Your task to perform on an android device: Go to Reddit.com Image 0: 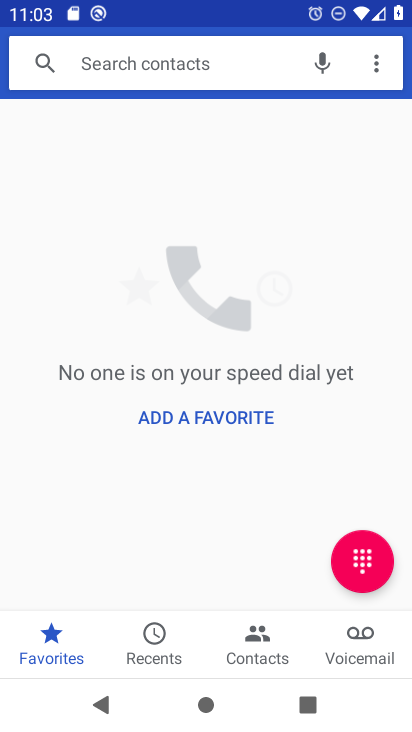
Step 0: press back button
Your task to perform on an android device: Go to Reddit.com Image 1: 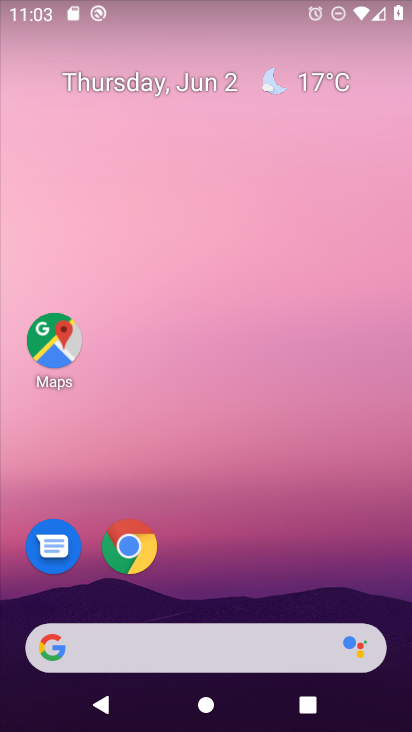
Step 1: drag from (272, 573) to (177, 40)
Your task to perform on an android device: Go to Reddit.com Image 2: 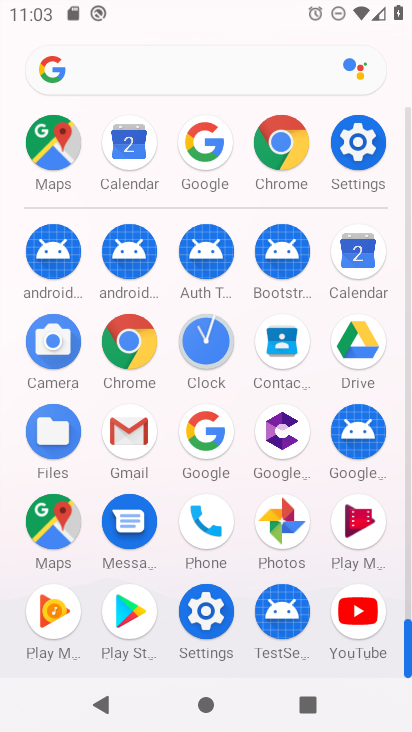
Step 2: drag from (5, 574) to (12, 208)
Your task to perform on an android device: Go to Reddit.com Image 3: 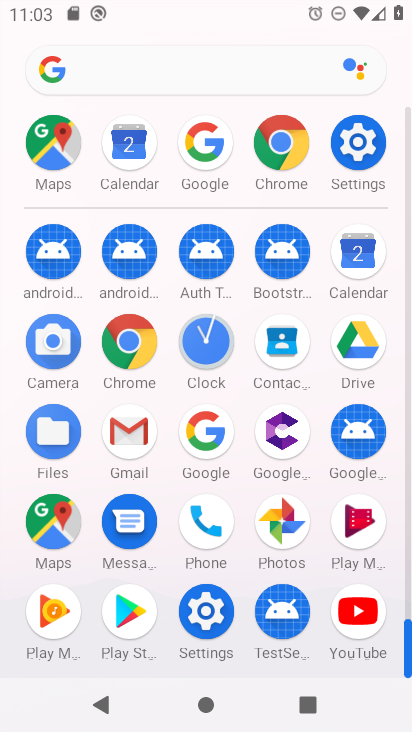
Step 3: click (283, 140)
Your task to perform on an android device: Go to Reddit.com Image 4: 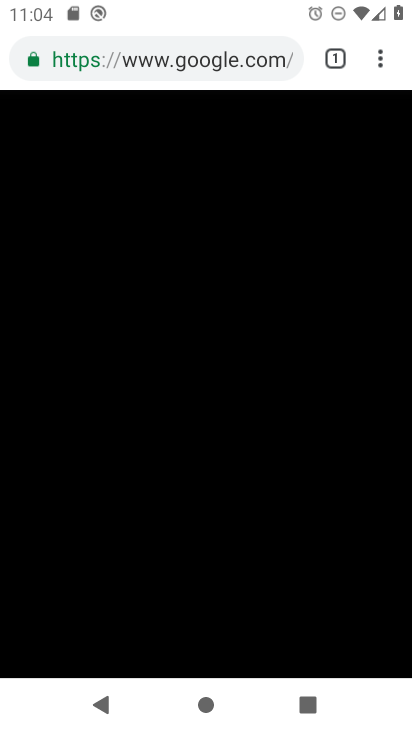
Step 4: click (170, 56)
Your task to perform on an android device: Go to Reddit.com Image 5: 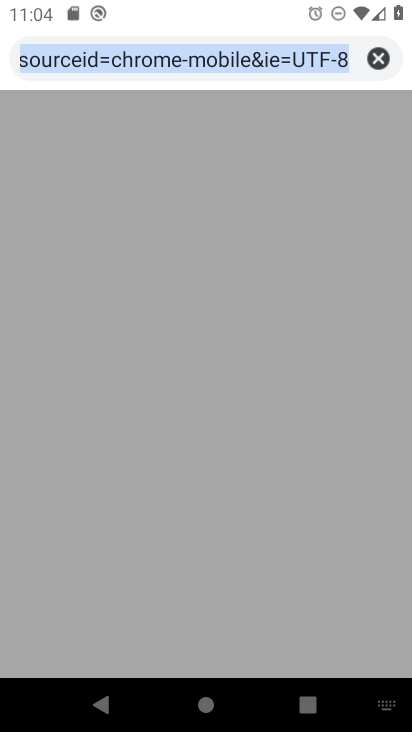
Step 5: click (372, 55)
Your task to perform on an android device: Go to Reddit.com Image 6: 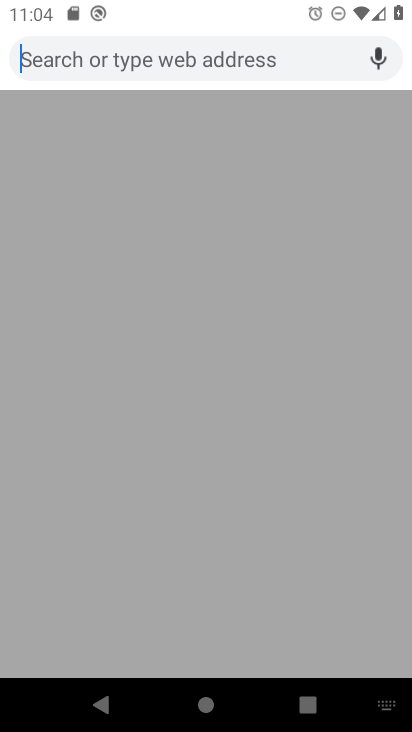
Step 6: type "Reddit.com"
Your task to perform on an android device: Go to Reddit.com Image 7: 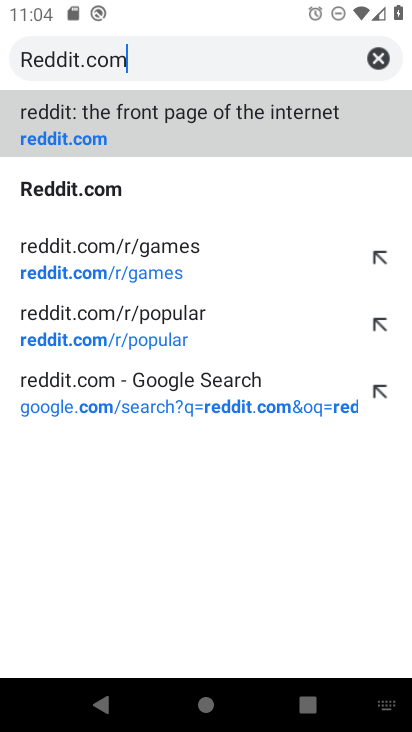
Step 7: type ""
Your task to perform on an android device: Go to Reddit.com Image 8: 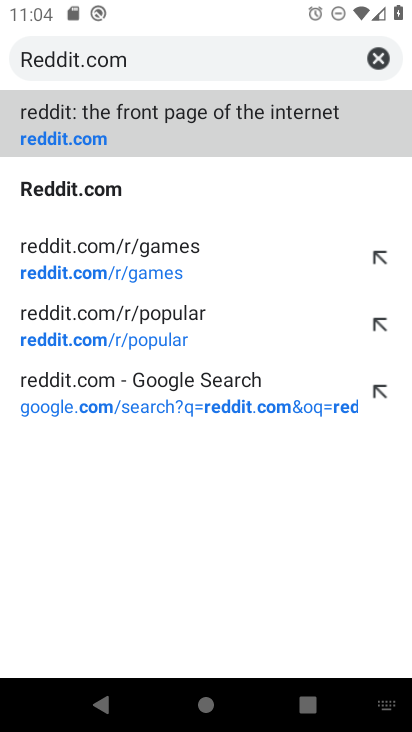
Step 8: click (144, 120)
Your task to perform on an android device: Go to Reddit.com Image 9: 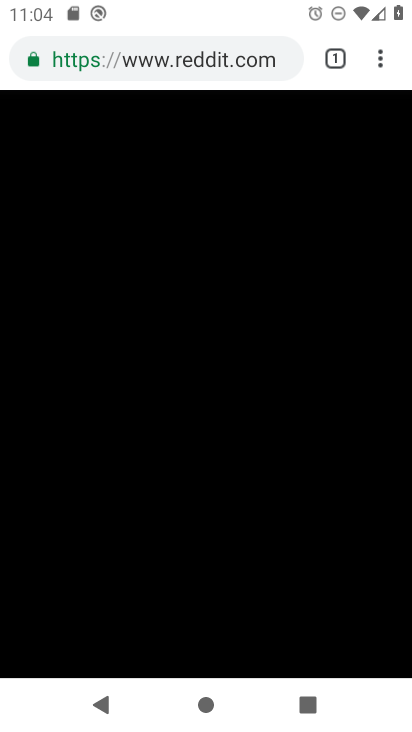
Step 9: task complete